Your task to perform on an android device: Is it going to rain this weekend? Image 0: 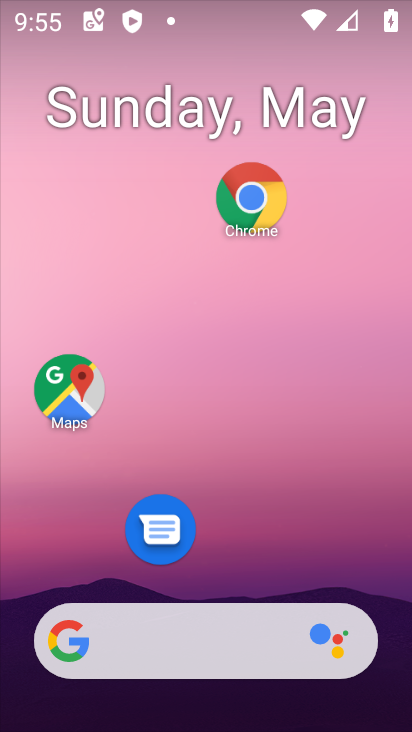
Step 0: click (135, 642)
Your task to perform on an android device: Is it going to rain this weekend? Image 1: 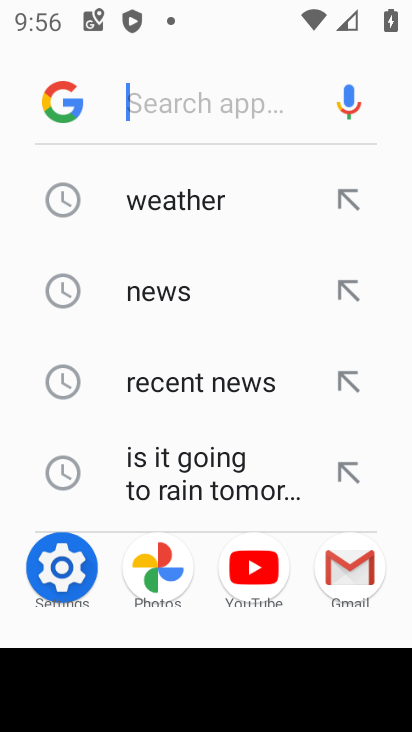
Step 1: type "is it going to rain this weekend"
Your task to perform on an android device: Is it going to rain this weekend? Image 2: 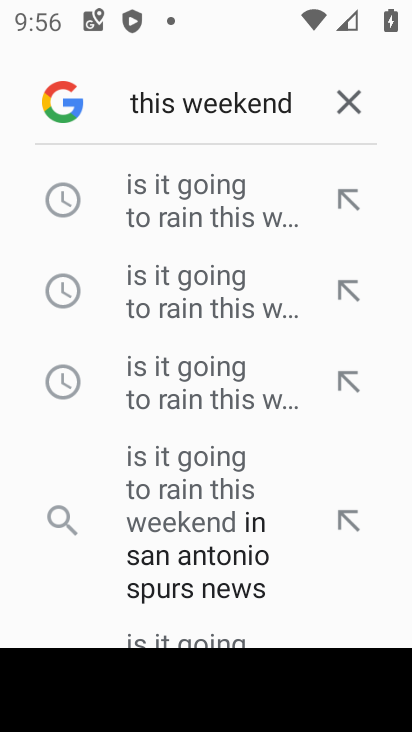
Step 2: click (194, 209)
Your task to perform on an android device: Is it going to rain this weekend? Image 3: 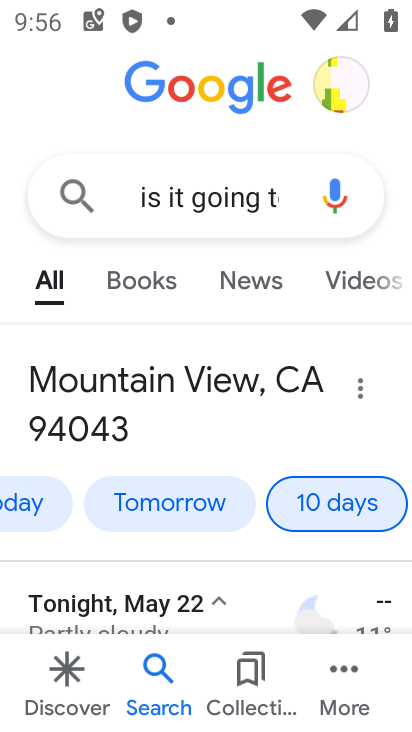
Step 3: drag from (158, 418) to (259, 132)
Your task to perform on an android device: Is it going to rain this weekend? Image 4: 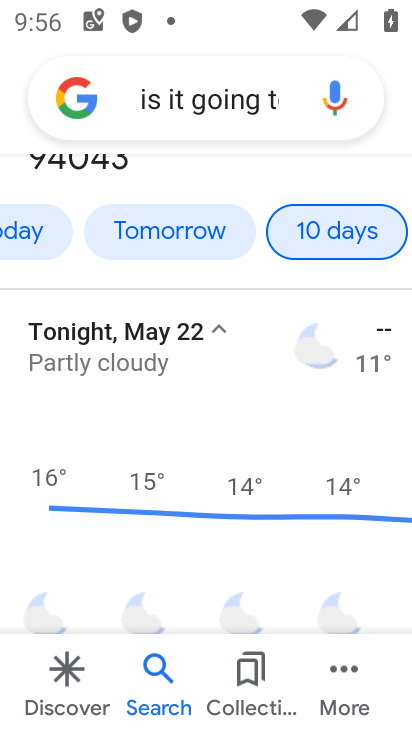
Step 4: drag from (234, 559) to (249, 257)
Your task to perform on an android device: Is it going to rain this weekend? Image 5: 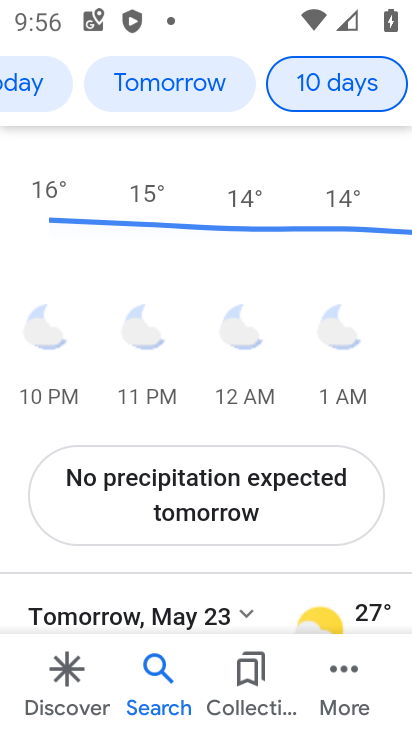
Step 5: drag from (241, 512) to (269, 299)
Your task to perform on an android device: Is it going to rain this weekend? Image 6: 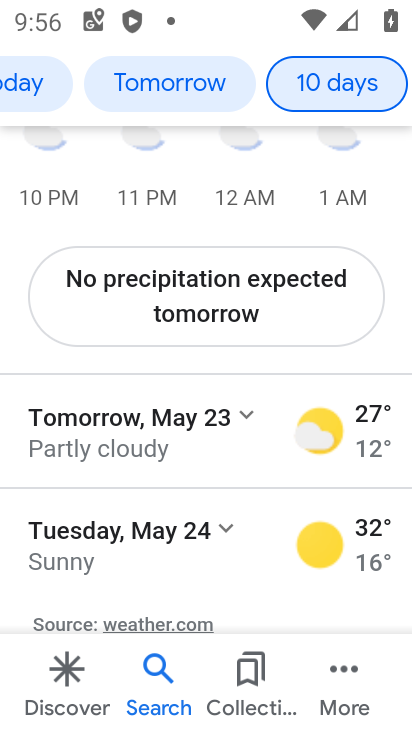
Step 6: drag from (260, 543) to (284, 354)
Your task to perform on an android device: Is it going to rain this weekend? Image 7: 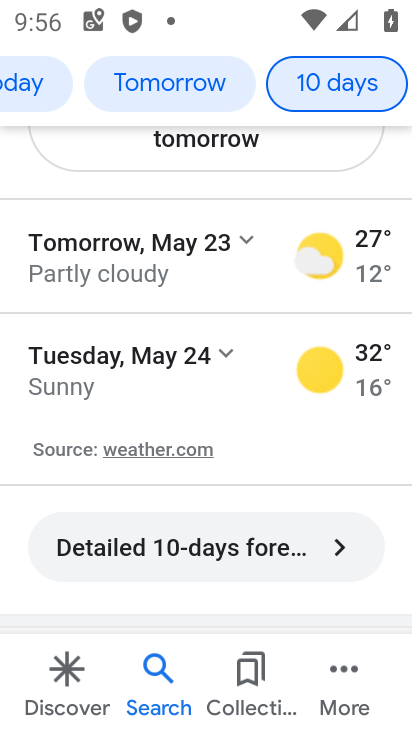
Step 7: click (256, 550)
Your task to perform on an android device: Is it going to rain this weekend? Image 8: 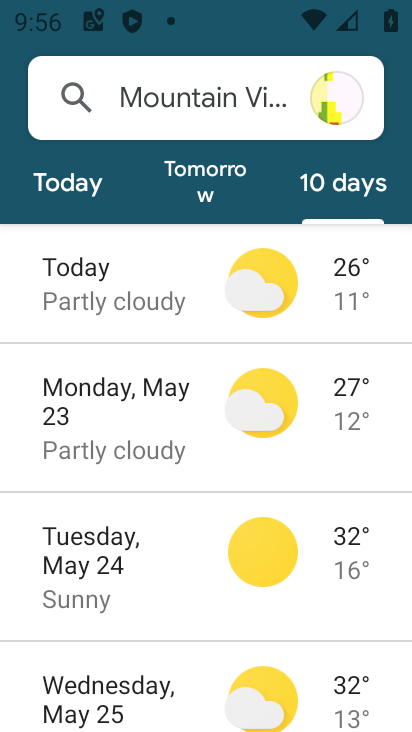
Step 8: task complete